Your task to perform on an android device: install app "Life360: Find Family & Friends" Image 0: 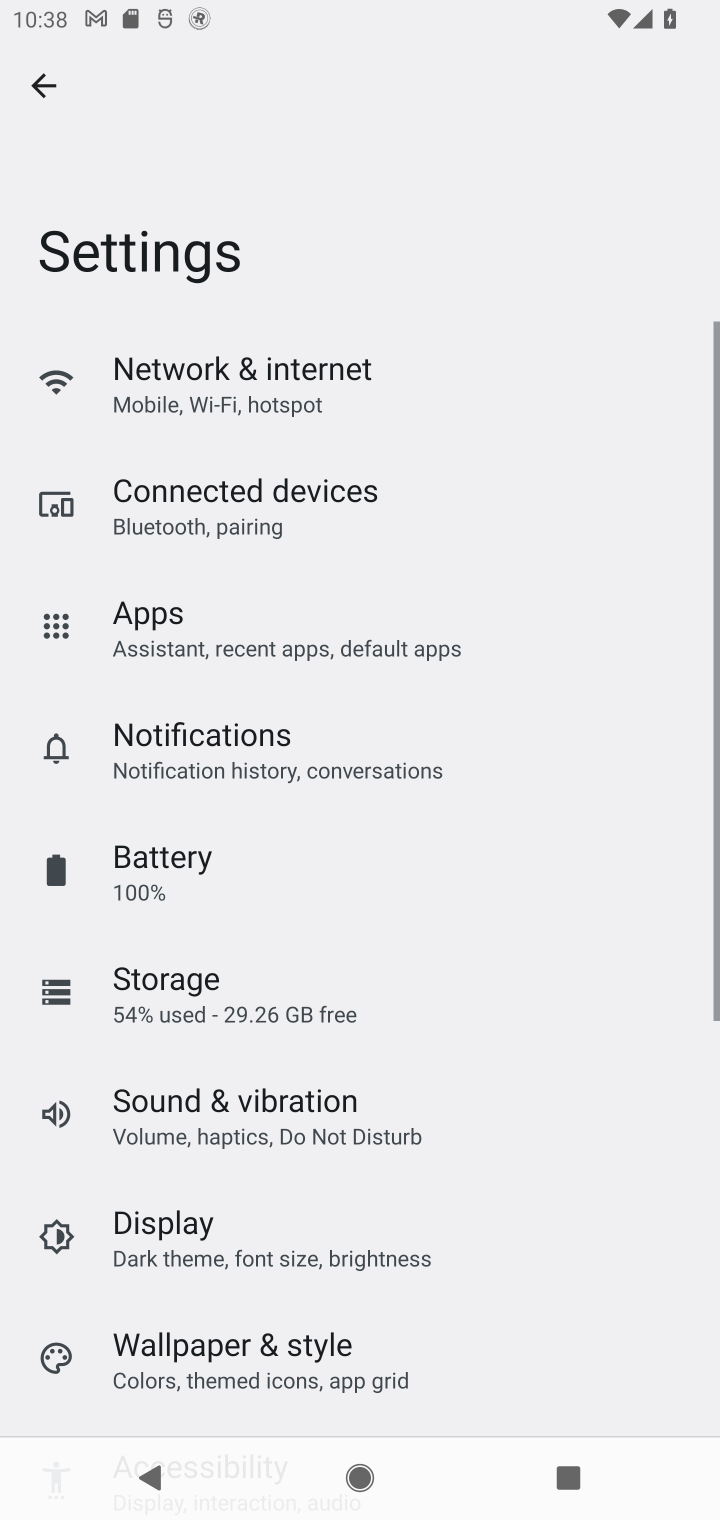
Step 0: press home button
Your task to perform on an android device: install app "Life360: Find Family & Friends" Image 1: 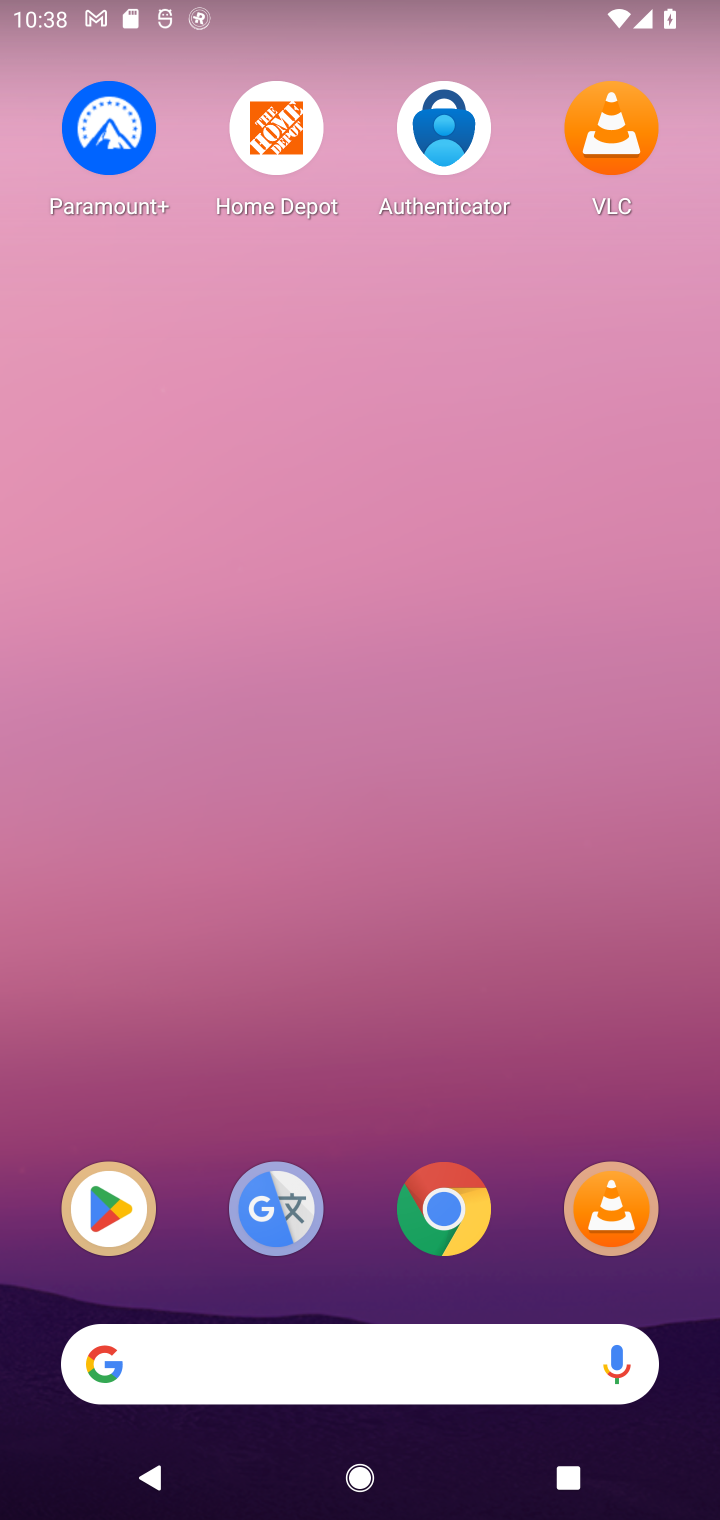
Step 1: drag from (289, 1370) to (343, 360)
Your task to perform on an android device: install app "Life360: Find Family & Friends" Image 2: 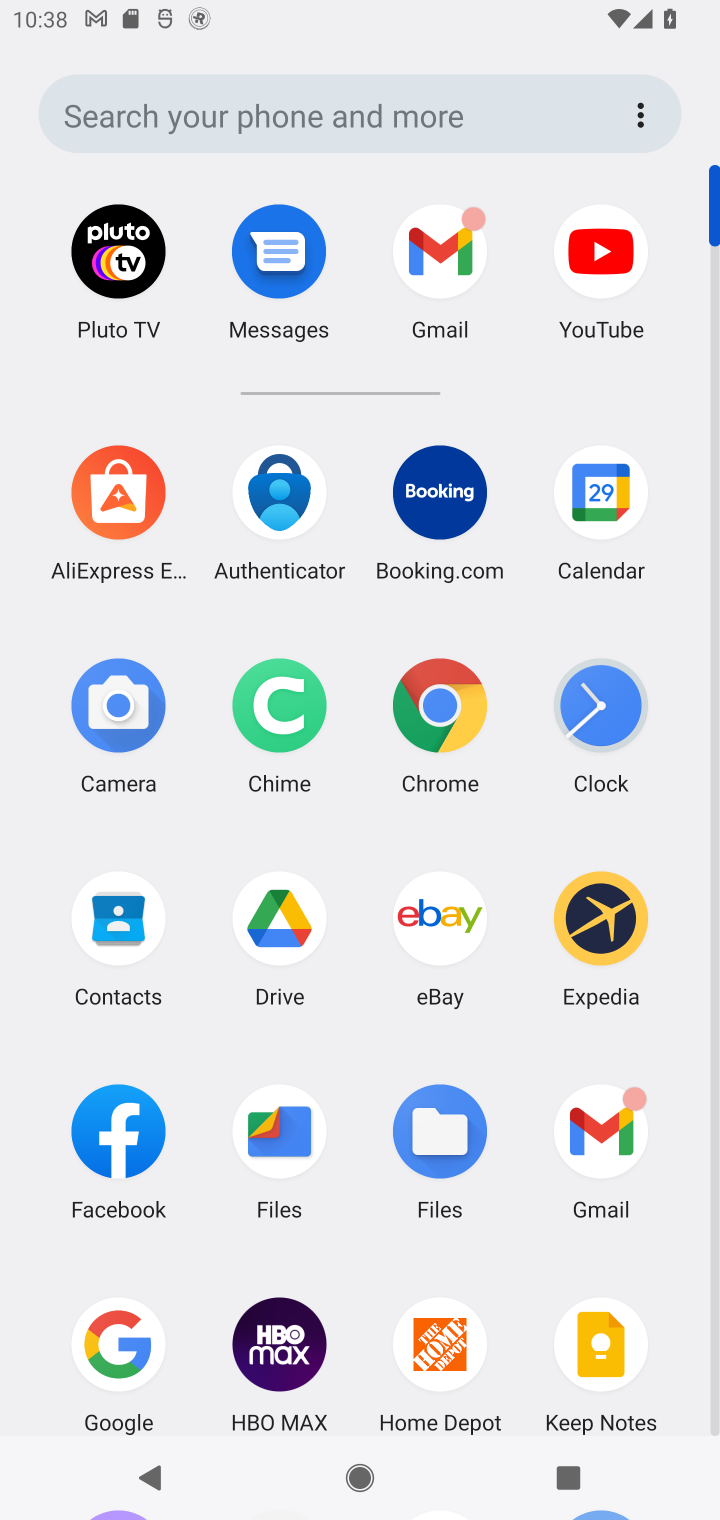
Step 2: drag from (378, 1299) to (360, 333)
Your task to perform on an android device: install app "Life360: Find Family & Friends" Image 3: 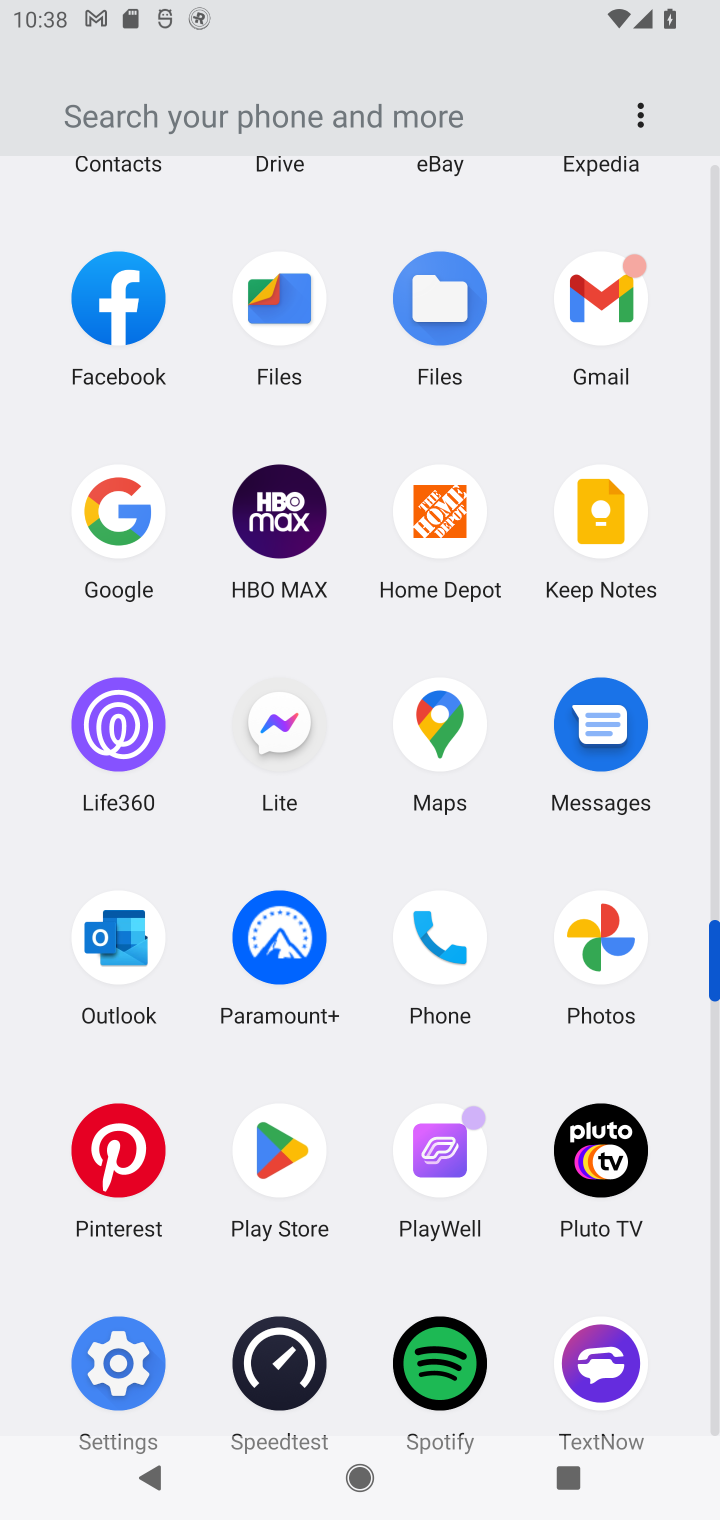
Step 3: drag from (348, 1251) to (394, 928)
Your task to perform on an android device: install app "Life360: Find Family & Friends" Image 4: 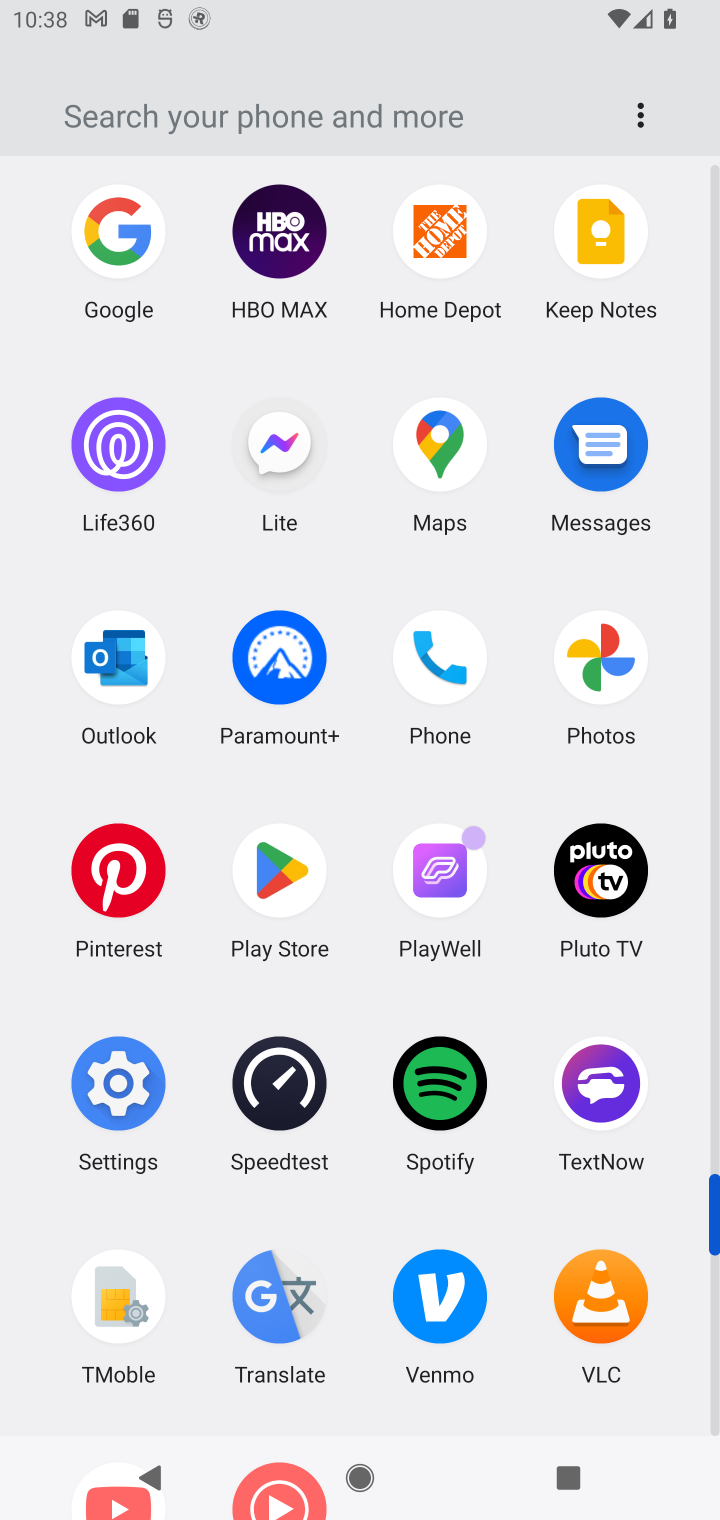
Step 4: click (291, 870)
Your task to perform on an android device: install app "Life360: Find Family & Friends" Image 5: 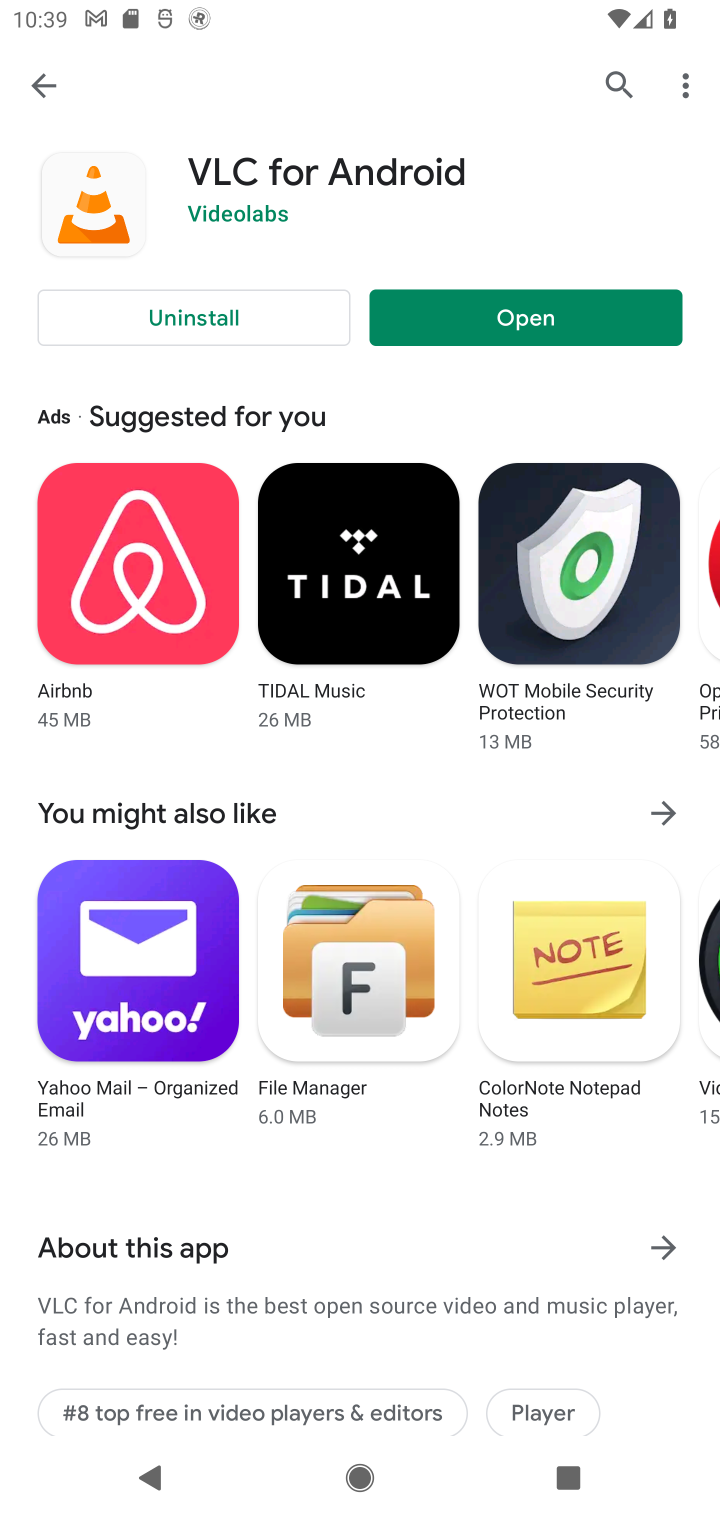
Step 5: click (605, 81)
Your task to perform on an android device: install app "Life360: Find Family & Friends" Image 6: 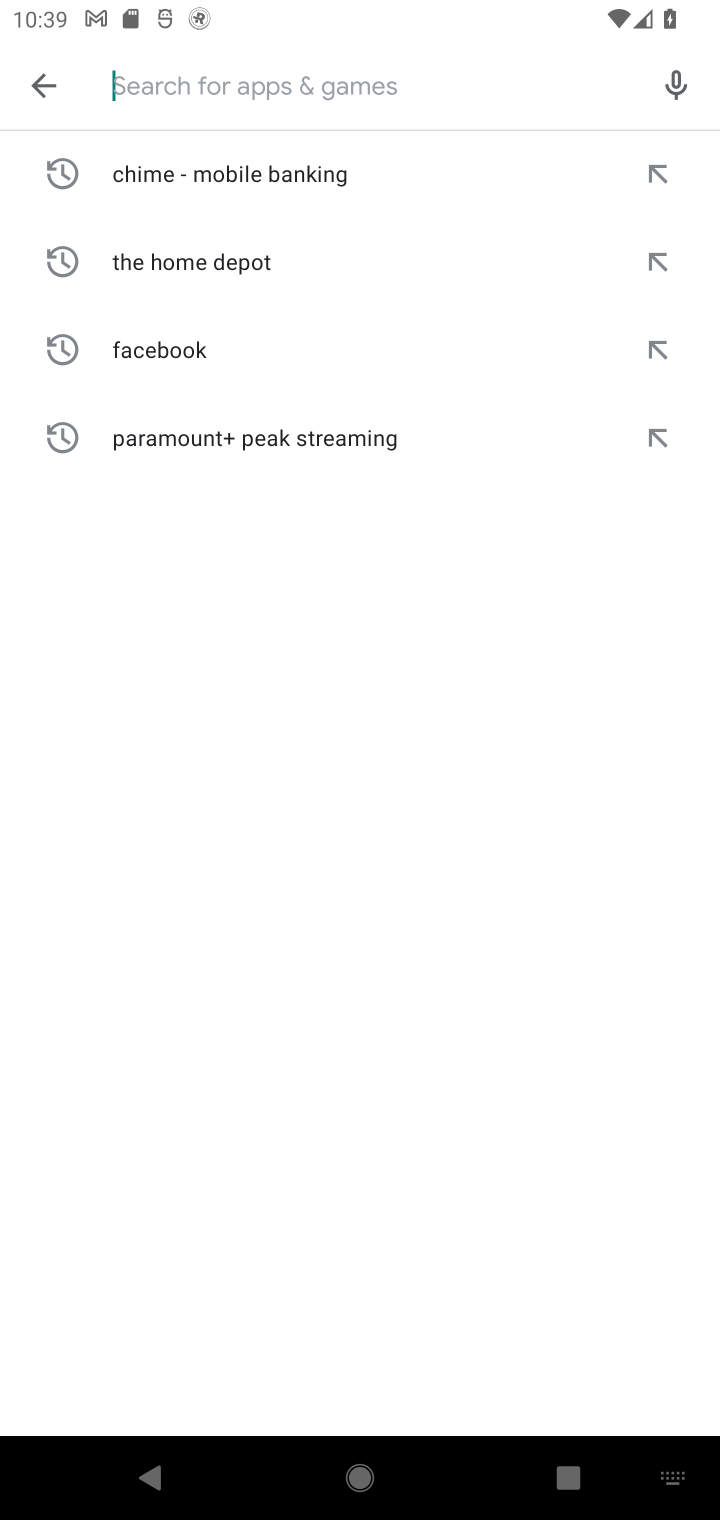
Step 6: type "Life360: Find Family & Friends"
Your task to perform on an android device: install app "Life360: Find Family & Friends" Image 7: 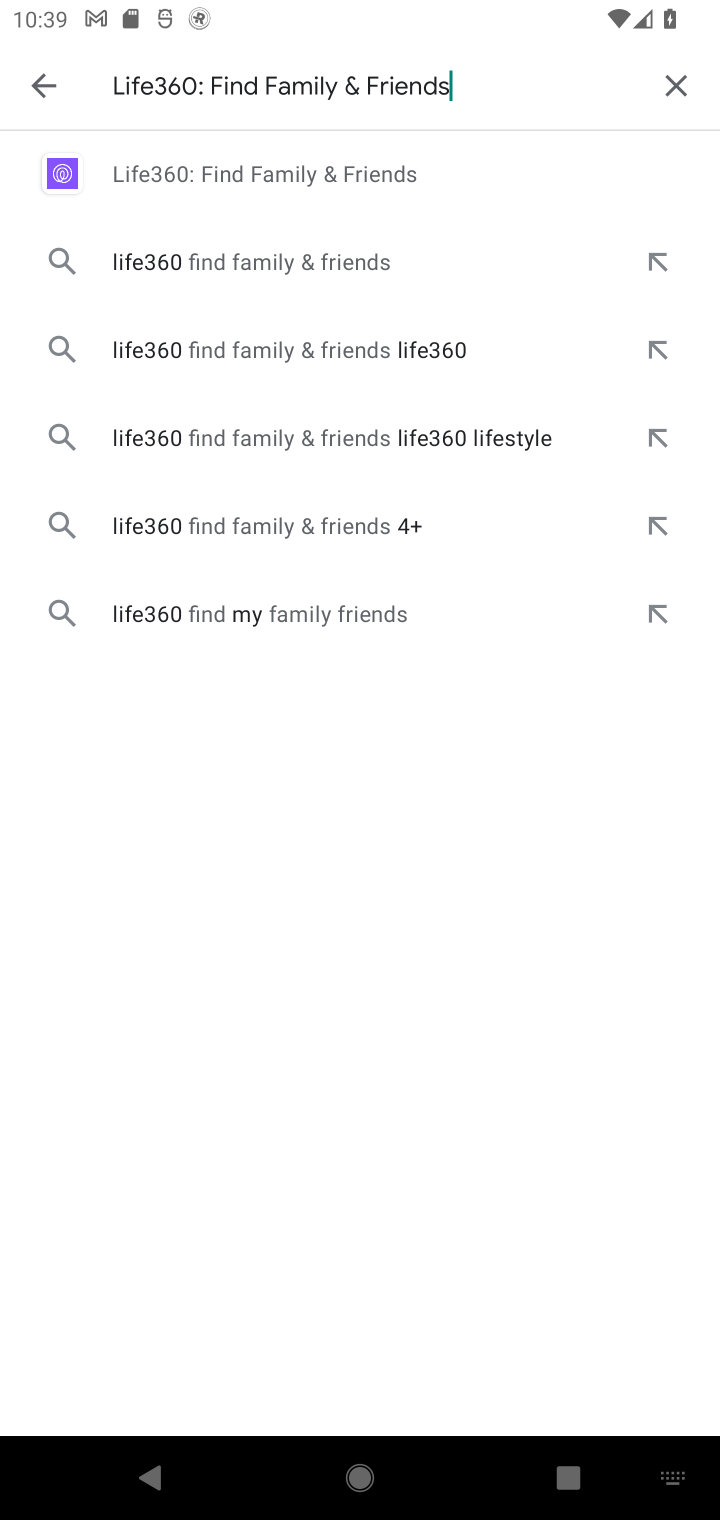
Step 7: click (334, 182)
Your task to perform on an android device: install app "Life360: Find Family & Friends" Image 8: 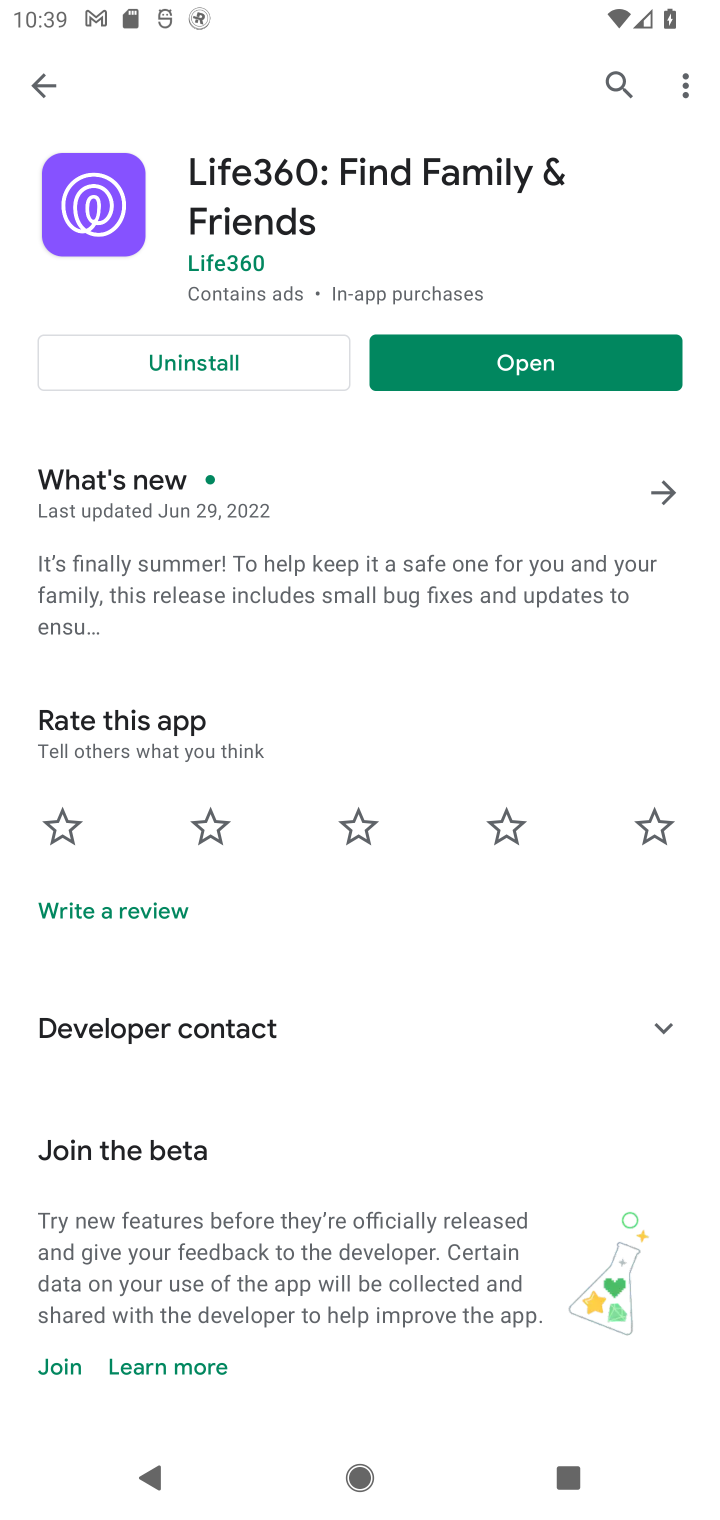
Step 8: task complete